Your task to perform on an android device: Do I have any events this weekend? Image 0: 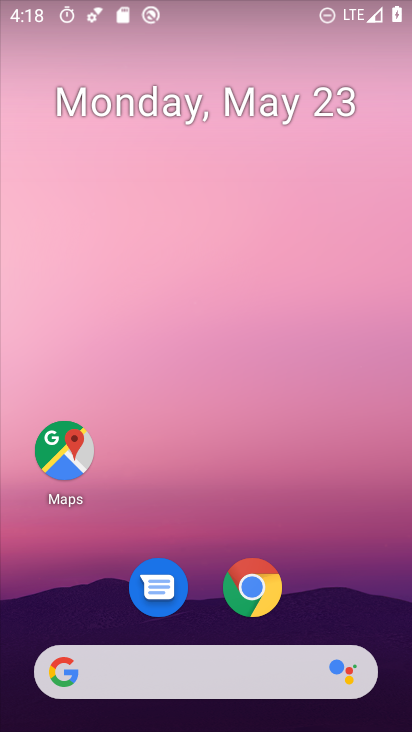
Step 0: drag from (195, 604) to (202, 142)
Your task to perform on an android device: Do I have any events this weekend? Image 1: 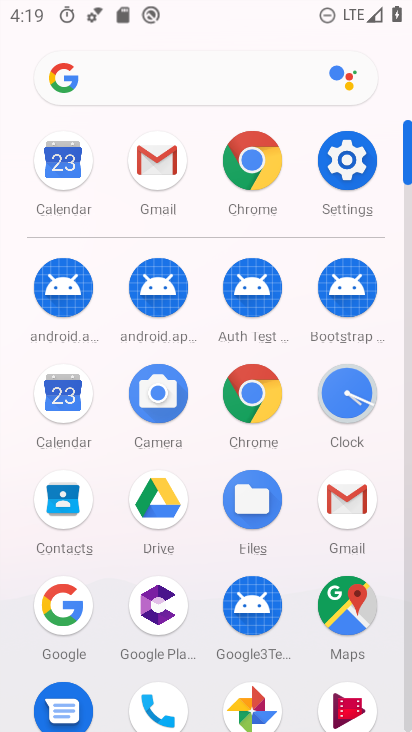
Step 1: click (79, 405)
Your task to perform on an android device: Do I have any events this weekend? Image 2: 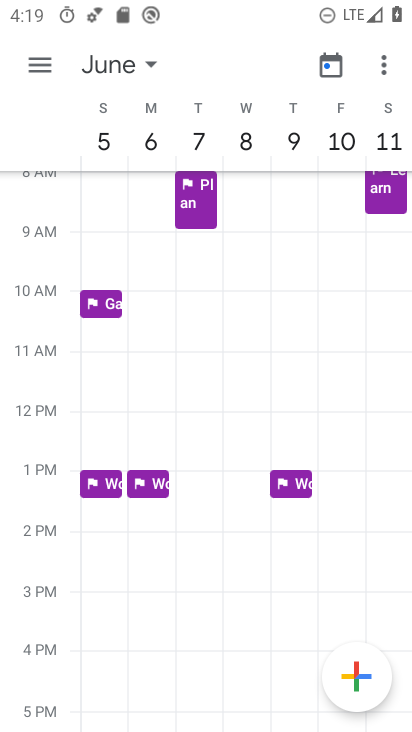
Step 2: drag from (124, 151) to (384, 134)
Your task to perform on an android device: Do I have any events this weekend? Image 3: 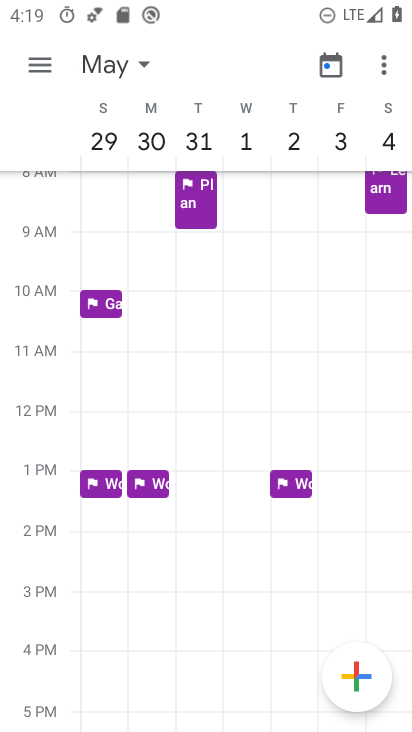
Step 3: drag from (151, 146) to (406, 178)
Your task to perform on an android device: Do I have any events this weekend? Image 4: 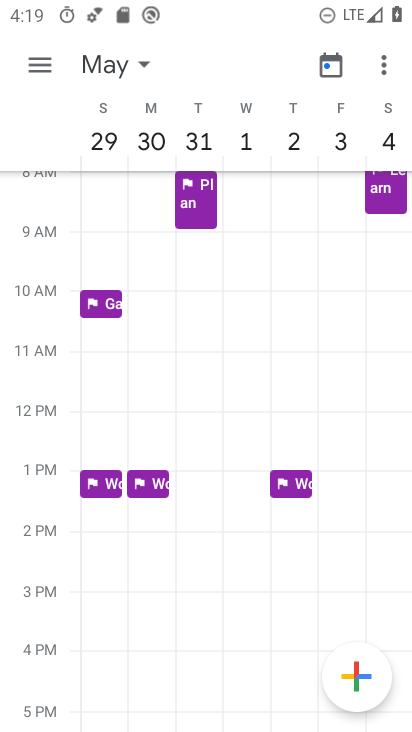
Step 4: click (35, 62)
Your task to perform on an android device: Do I have any events this weekend? Image 5: 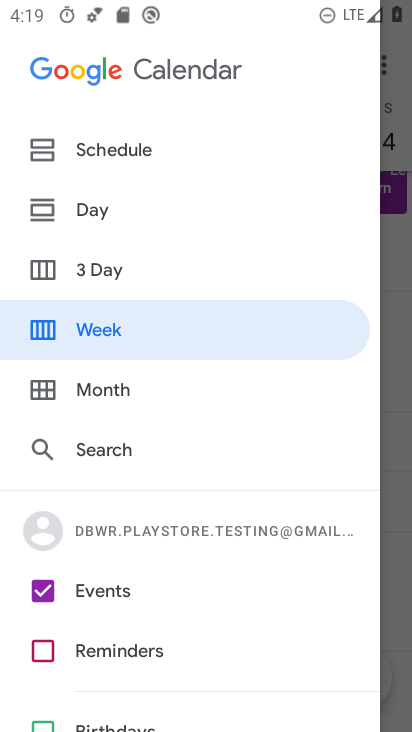
Step 5: click (115, 333)
Your task to perform on an android device: Do I have any events this weekend? Image 6: 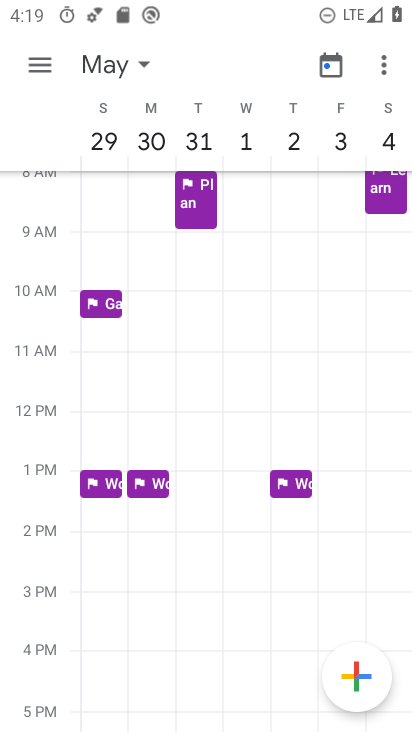
Step 6: task complete